Your task to perform on an android device: Add "logitech g910" to the cart on bestbuy Image 0: 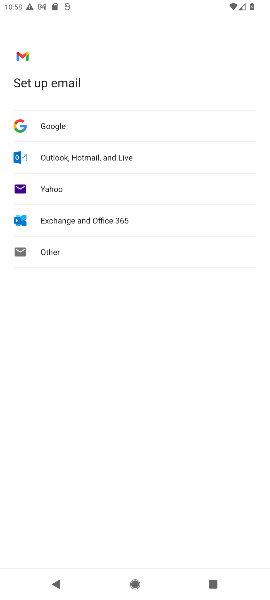
Step 0: press home button
Your task to perform on an android device: Add "logitech g910" to the cart on bestbuy Image 1: 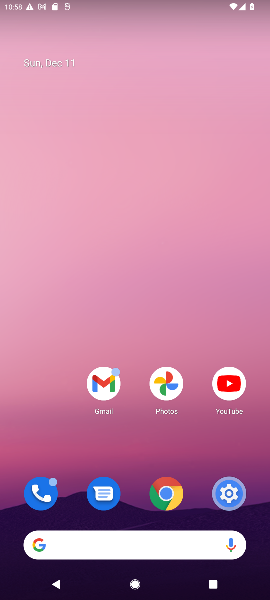
Step 1: click (158, 553)
Your task to perform on an android device: Add "logitech g910" to the cart on bestbuy Image 2: 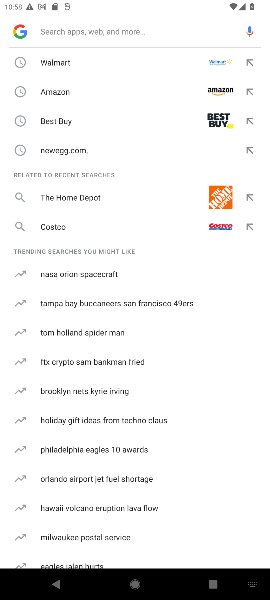
Step 2: type "bestbuy"
Your task to perform on an android device: Add "logitech g910" to the cart on bestbuy Image 3: 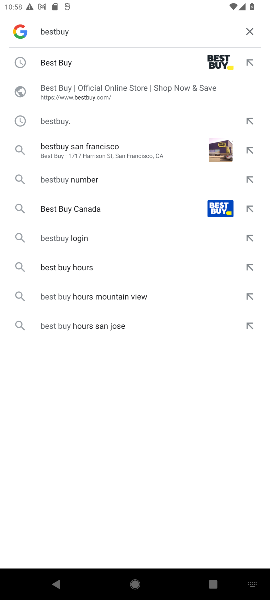
Step 3: click (56, 70)
Your task to perform on an android device: Add "logitech g910" to the cart on bestbuy Image 4: 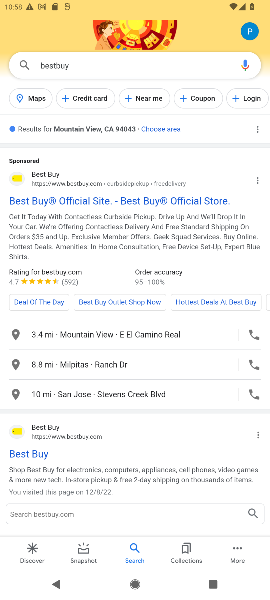
Step 4: click (24, 192)
Your task to perform on an android device: Add "logitech g910" to the cart on bestbuy Image 5: 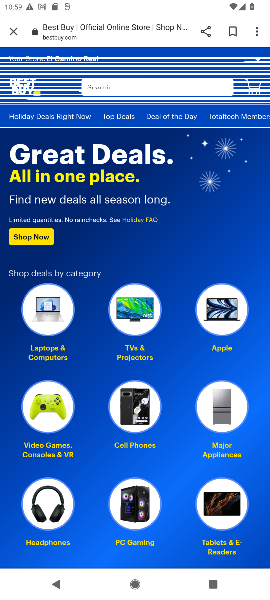
Step 5: click (124, 90)
Your task to perform on an android device: Add "logitech g910" to the cart on bestbuy Image 6: 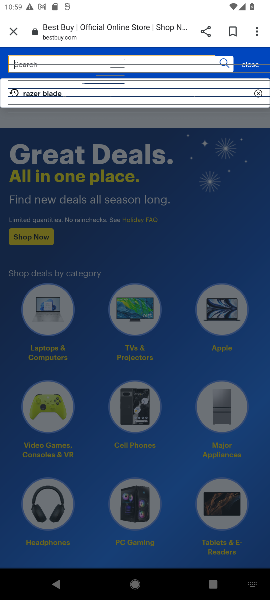
Step 6: type "logitech g910"
Your task to perform on an android device: Add "logitech g910" to the cart on bestbuy Image 7: 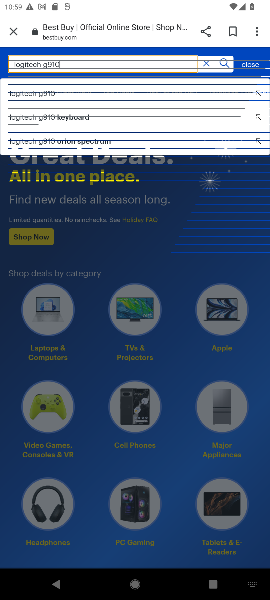
Step 7: click (225, 65)
Your task to perform on an android device: Add "logitech g910" to the cart on bestbuy Image 8: 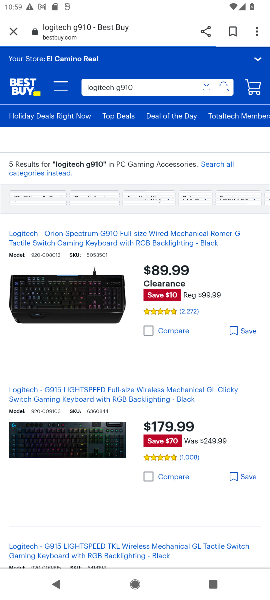
Step 8: click (111, 261)
Your task to perform on an android device: Add "logitech g910" to the cart on bestbuy Image 9: 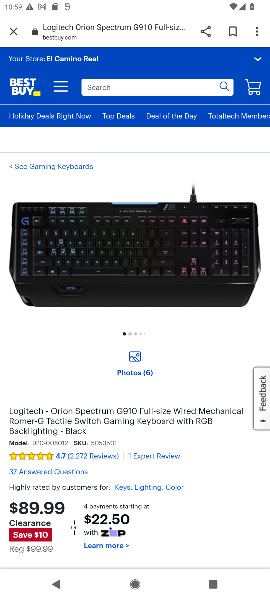
Step 9: task complete